Your task to perform on an android device: open a new tab in the chrome app Image 0: 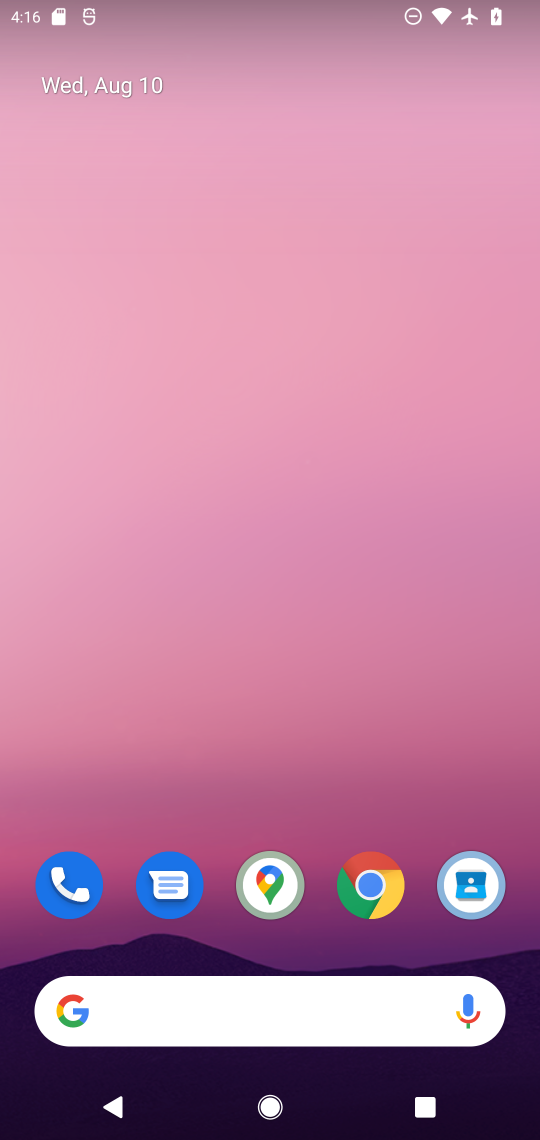
Step 0: click (377, 881)
Your task to perform on an android device: open a new tab in the chrome app Image 1: 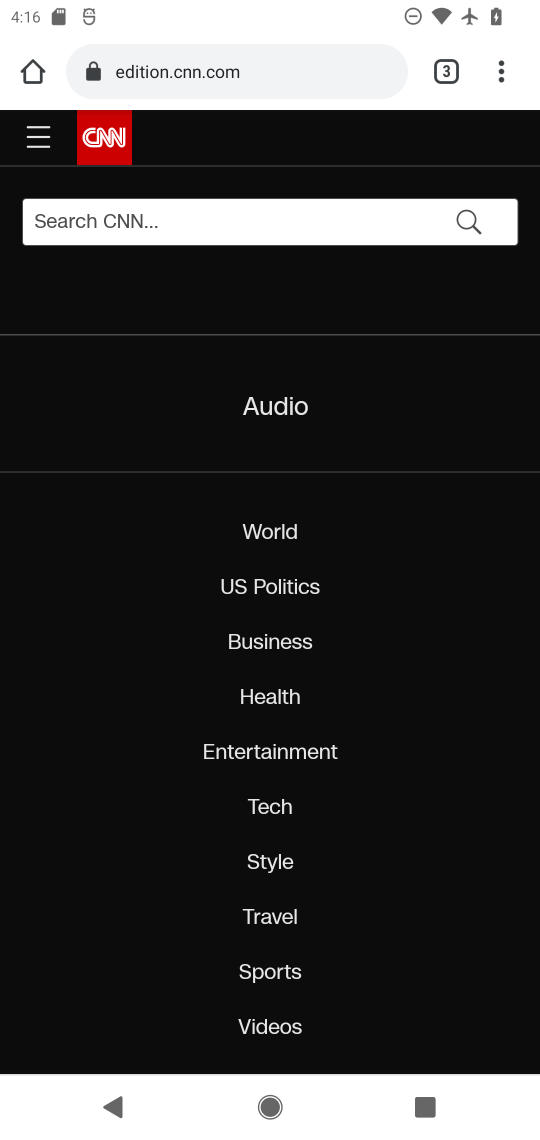
Step 1: click (502, 68)
Your task to perform on an android device: open a new tab in the chrome app Image 2: 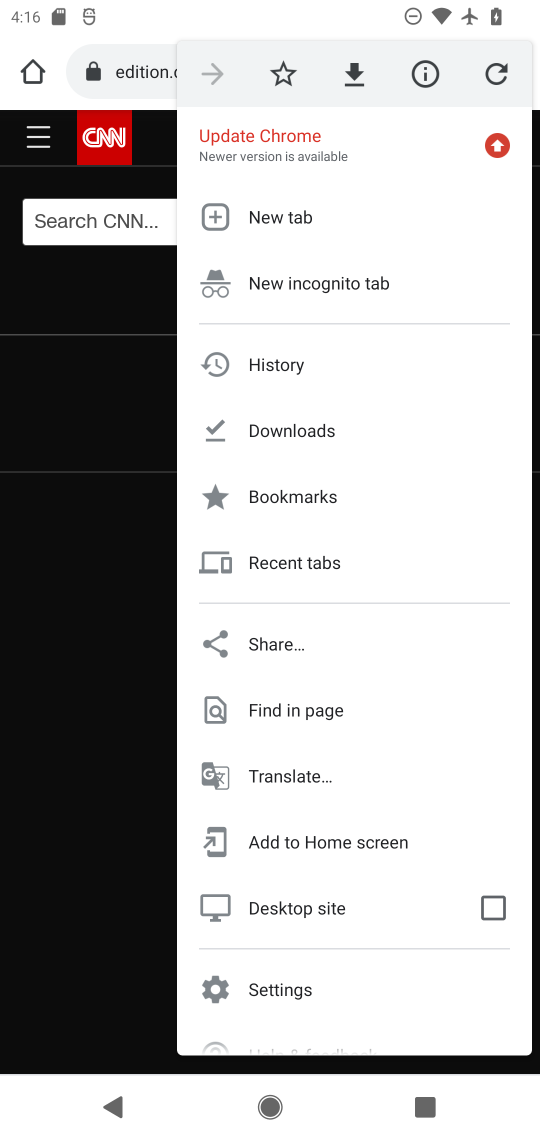
Step 2: click (301, 205)
Your task to perform on an android device: open a new tab in the chrome app Image 3: 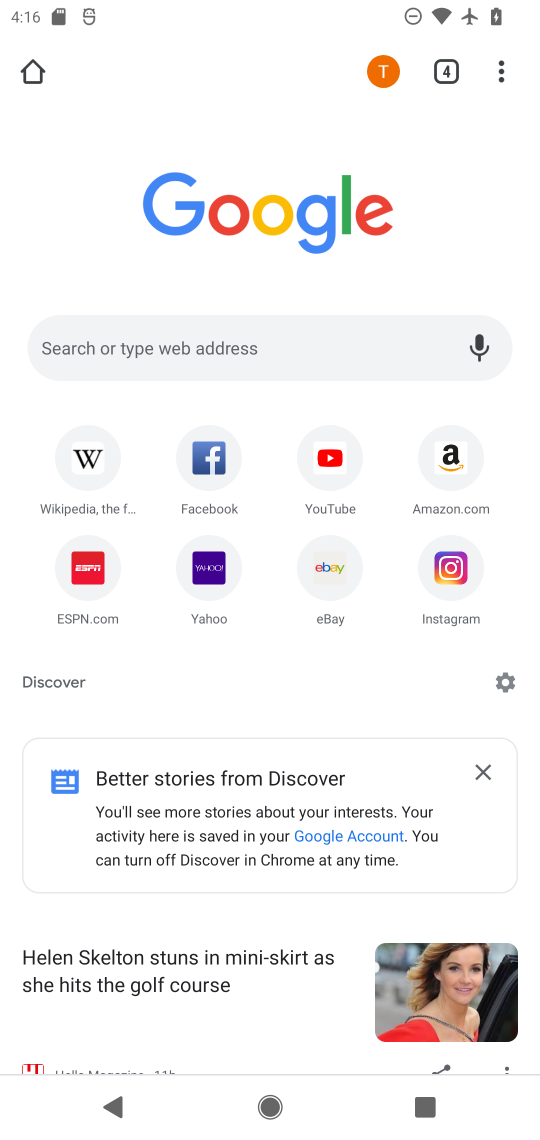
Step 3: task complete